Your task to perform on an android device: find which apps use the phone's location Image 0: 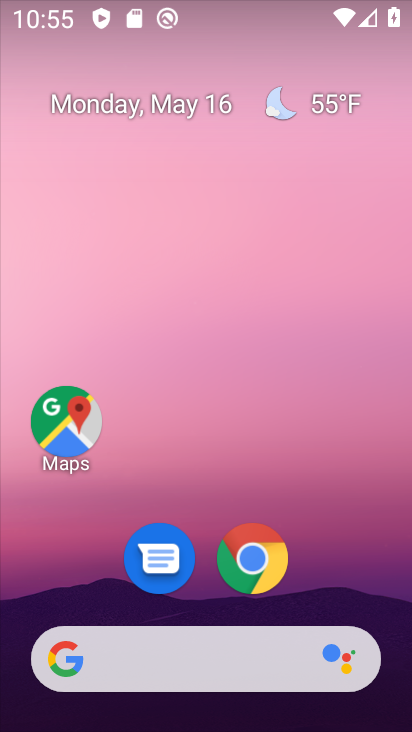
Step 0: drag from (207, 580) to (269, 99)
Your task to perform on an android device: find which apps use the phone's location Image 1: 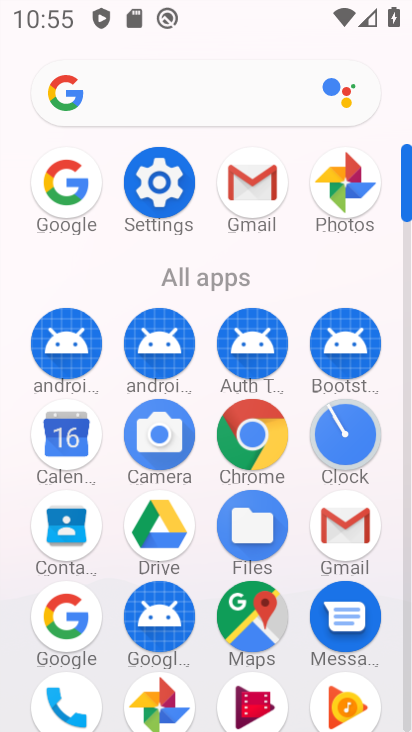
Step 1: click (167, 181)
Your task to perform on an android device: find which apps use the phone's location Image 2: 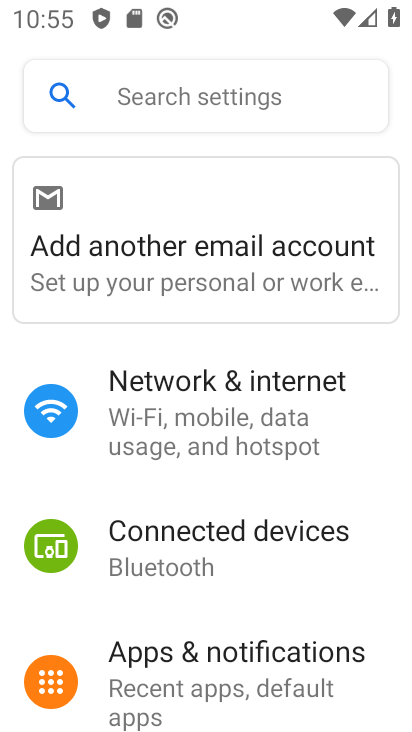
Step 2: drag from (222, 497) to (225, 66)
Your task to perform on an android device: find which apps use the phone's location Image 3: 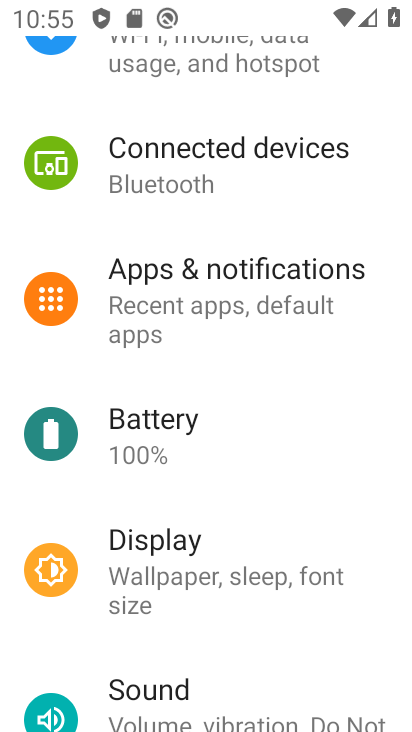
Step 3: drag from (252, 562) to (300, 117)
Your task to perform on an android device: find which apps use the phone's location Image 4: 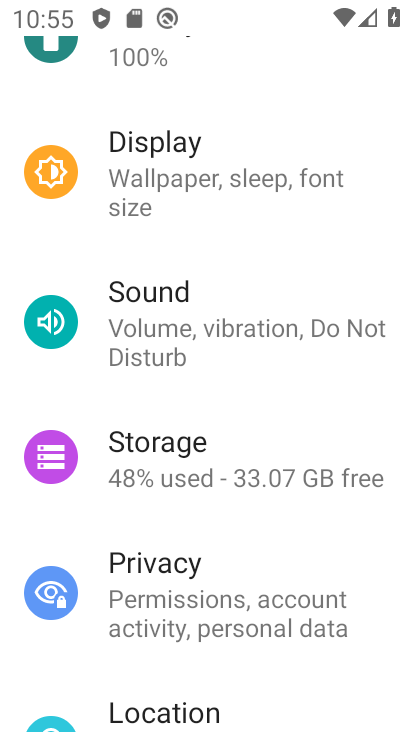
Step 4: drag from (239, 612) to (263, 307)
Your task to perform on an android device: find which apps use the phone's location Image 5: 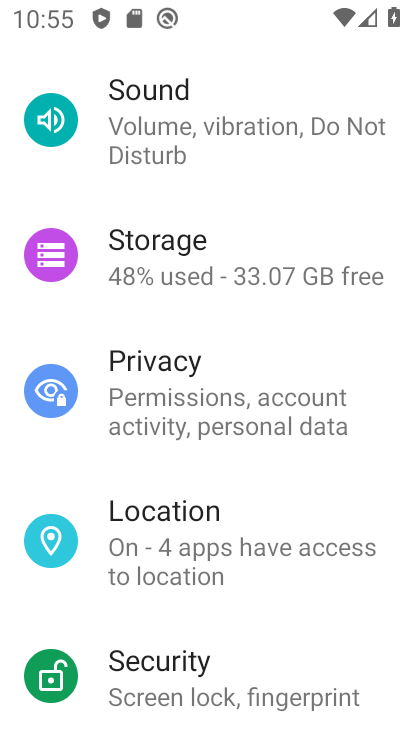
Step 5: click (193, 534)
Your task to perform on an android device: find which apps use the phone's location Image 6: 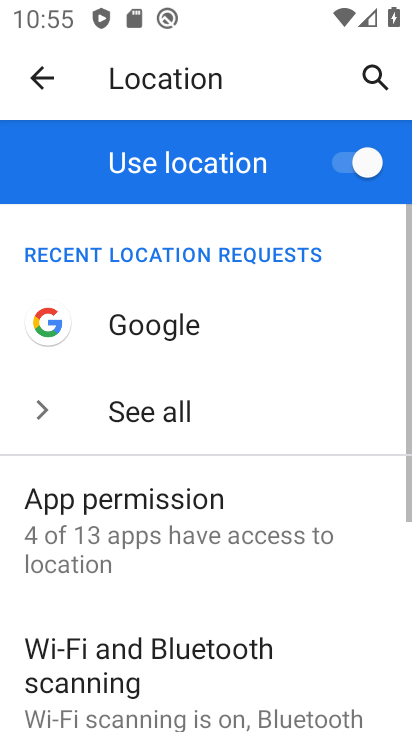
Step 6: click (101, 506)
Your task to perform on an android device: find which apps use the phone's location Image 7: 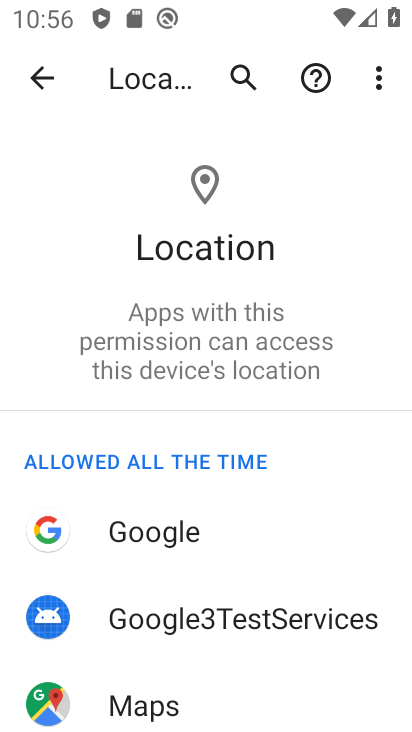
Step 7: task complete